Your task to perform on an android device: open app "Walmart Shopping & Grocery" (install if not already installed) Image 0: 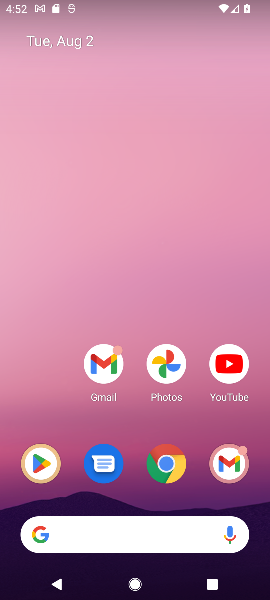
Step 0: click (47, 464)
Your task to perform on an android device: open app "Walmart Shopping & Grocery" (install if not already installed) Image 1: 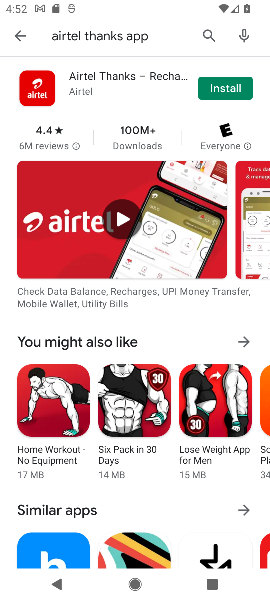
Step 1: click (204, 35)
Your task to perform on an android device: open app "Walmart Shopping & Grocery" (install if not already installed) Image 2: 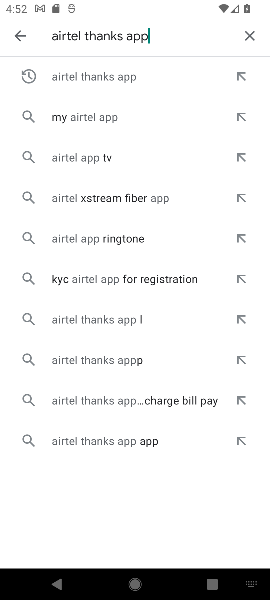
Step 2: click (246, 32)
Your task to perform on an android device: open app "Walmart Shopping & Grocery" (install if not already installed) Image 3: 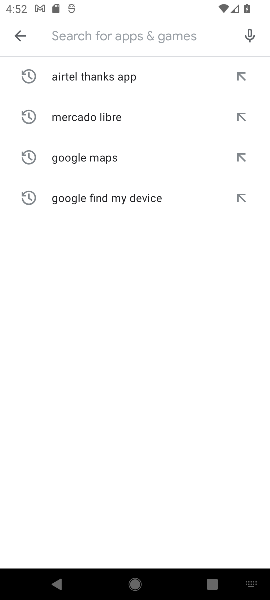
Step 3: type "Walmart Shopping & Grocery"
Your task to perform on an android device: open app "Walmart Shopping & Grocery" (install if not already installed) Image 4: 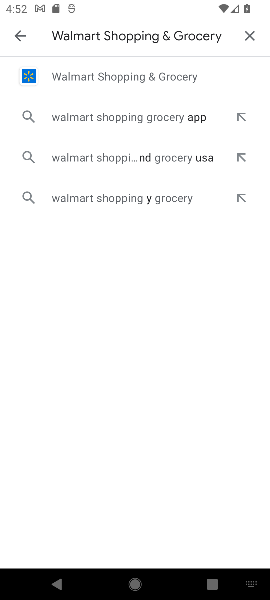
Step 4: click (133, 75)
Your task to perform on an android device: open app "Walmart Shopping & Grocery" (install if not already installed) Image 5: 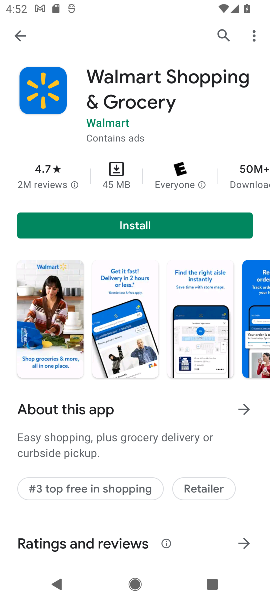
Step 5: click (144, 227)
Your task to perform on an android device: open app "Walmart Shopping & Grocery" (install if not already installed) Image 6: 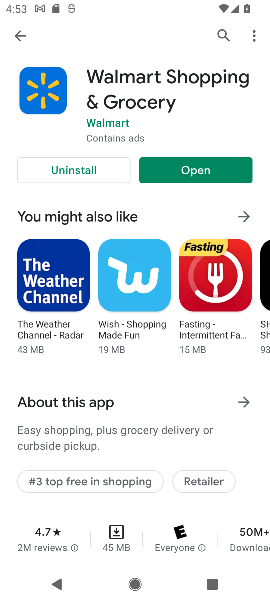
Step 6: click (200, 171)
Your task to perform on an android device: open app "Walmart Shopping & Grocery" (install if not already installed) Image 7: 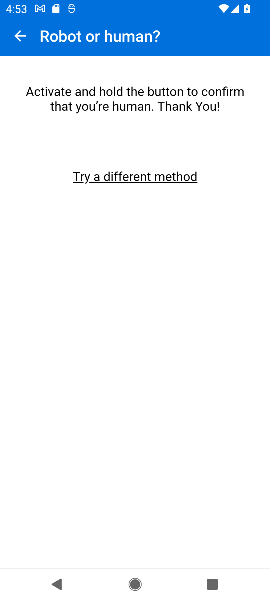
Step 7: task complete